Your task to perform on an android device: Empty the shopping cart on newegg.com. Add dell xps to the cart on newegg.com, then select checkout. Image 0: 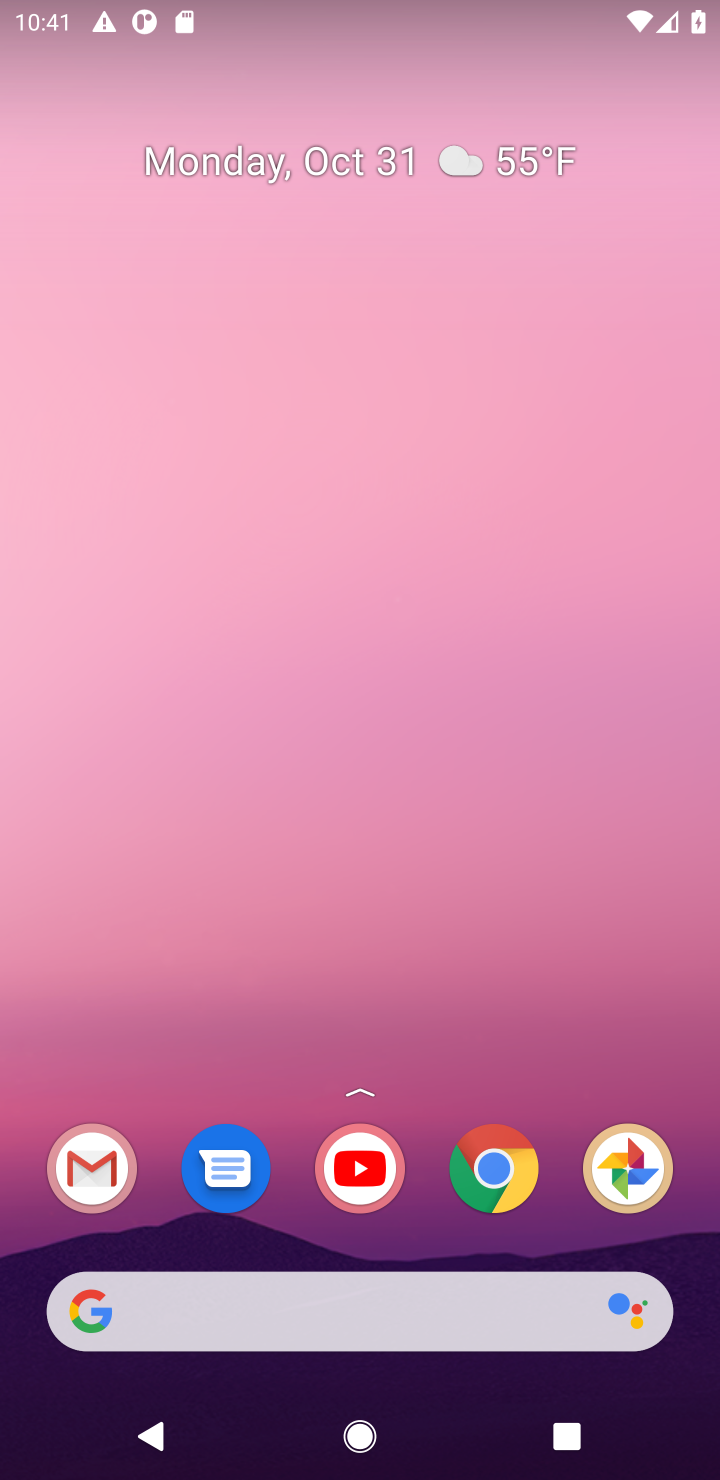
Step 0: click (507, 1169)
Your task to perform on an android device: Empty the shopping cart on newegg.com. Add dell xps to the cart on newegg.com, then select checkout. Image 1: 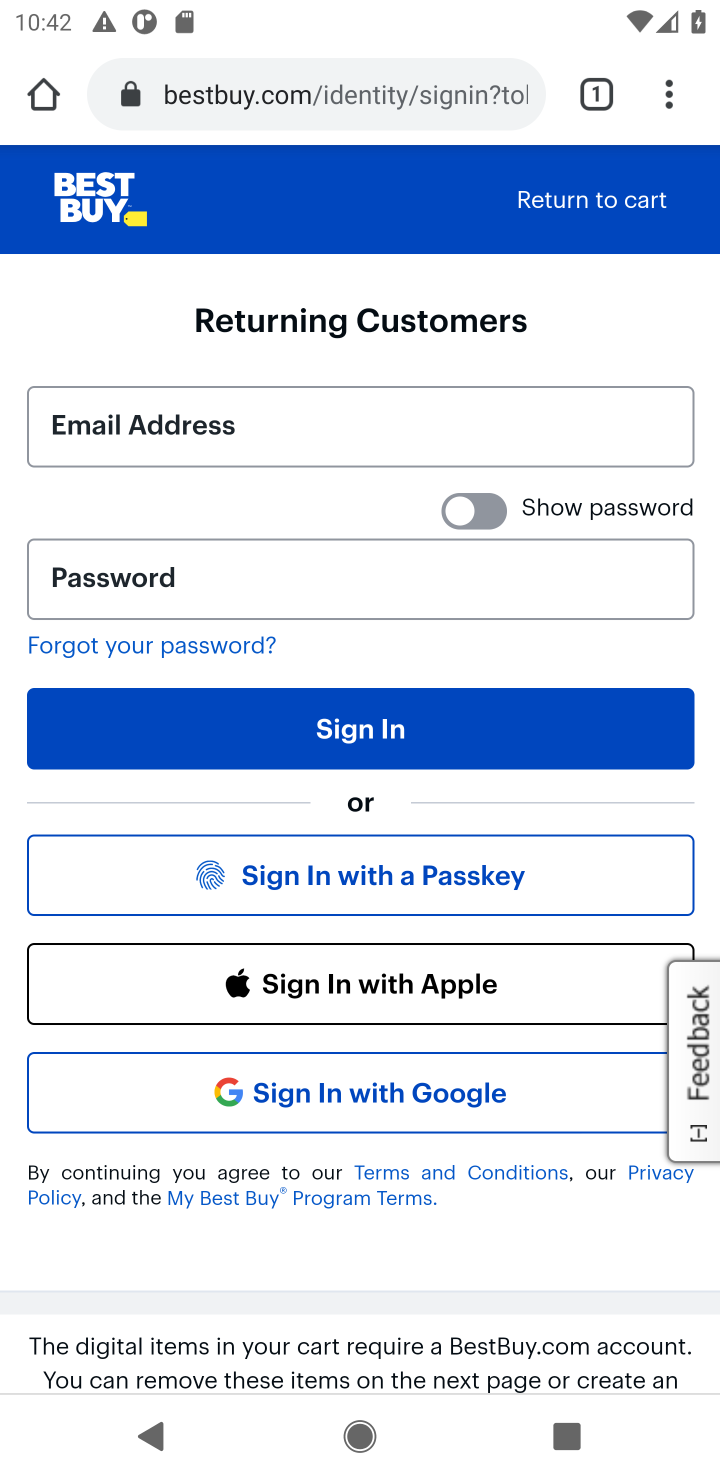
Step 1: click (411, 93)
Your task to perform on an android device: Empty the shopping cart on newegg.com. Add dell xps to the cart on newegg.com, then select checkout. Image 2: 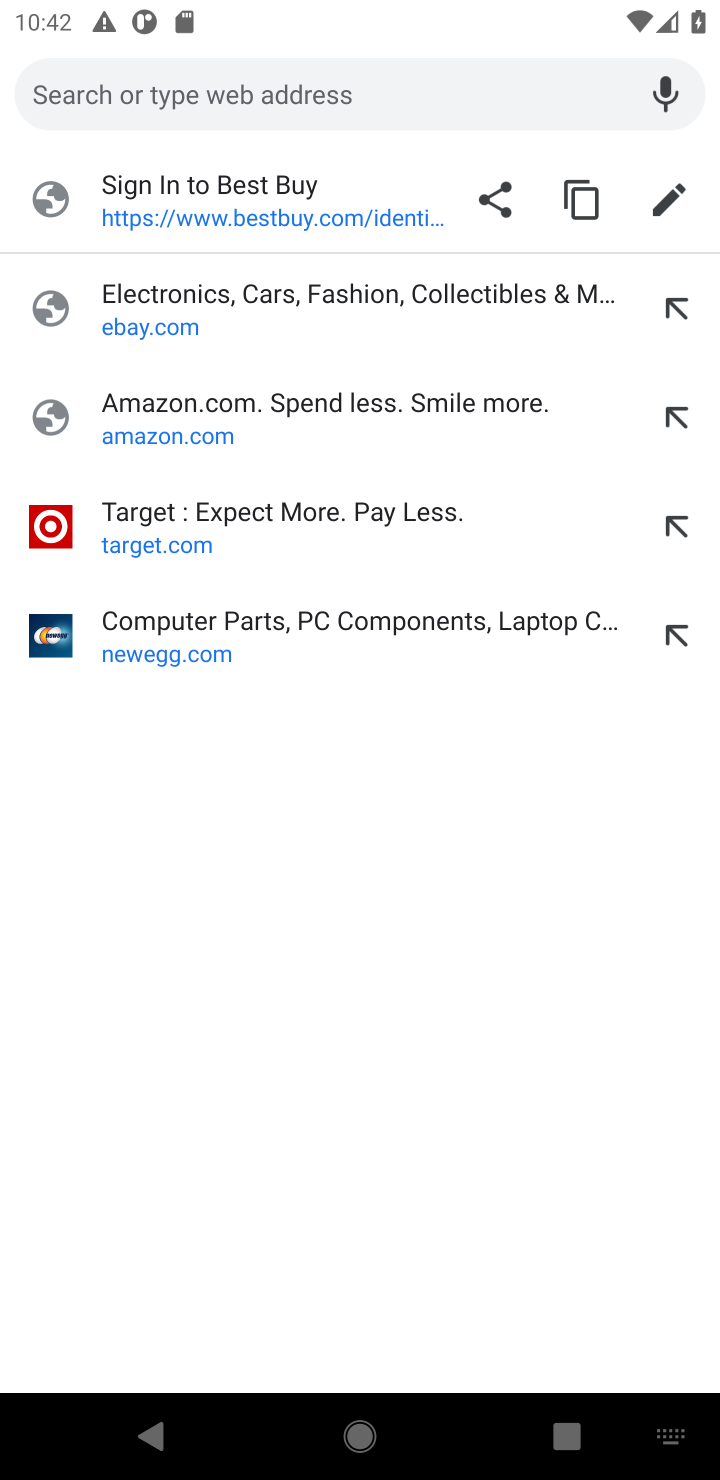
Step 2: type "newegg.com"
Your task to perform on an android device: Empty the shopping cart on newegg.com. Add dell xps to the cart on newegg.com, then select checkout. Image 3: 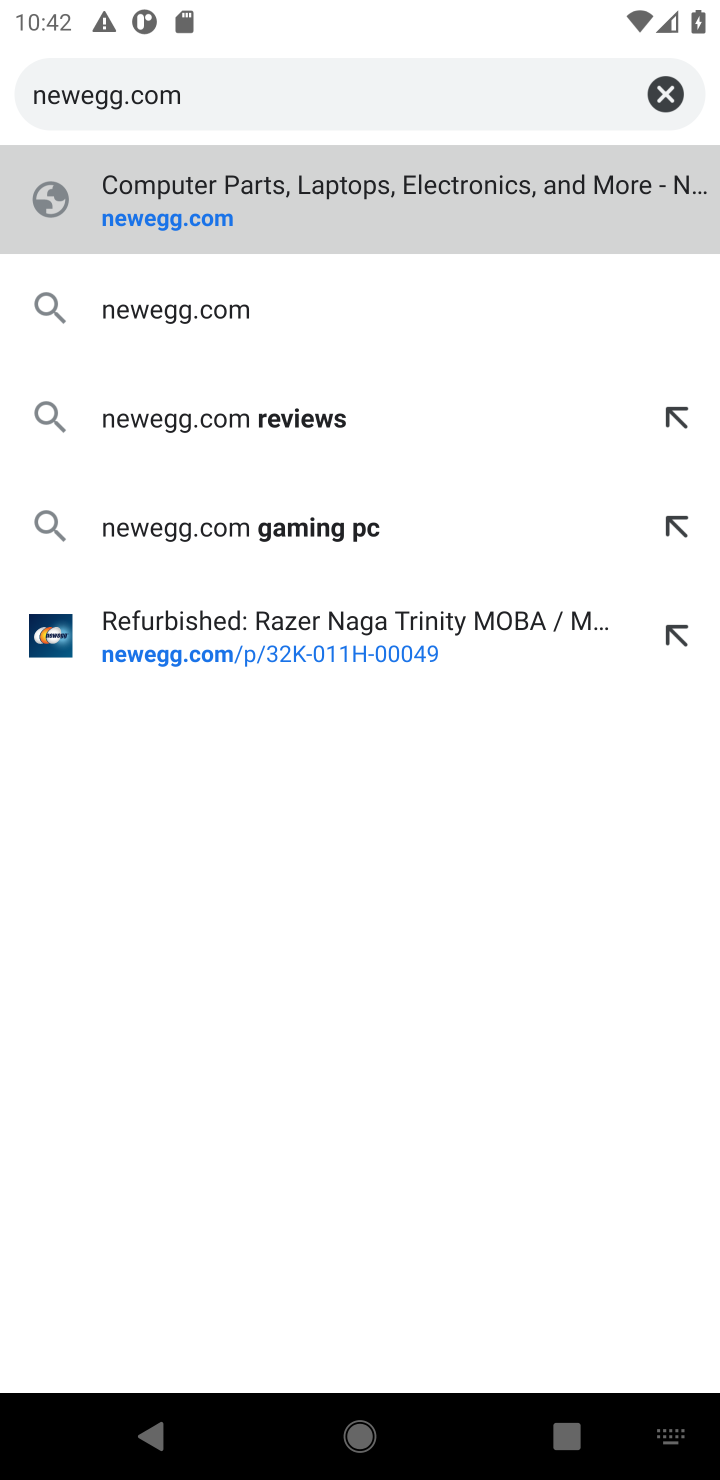
Step 3: press enter
Your task to perform on an android device: Empty the shopping cart on newegg.com. Add dell xps to the cart on newegg.com, then select checkout. Image 4: 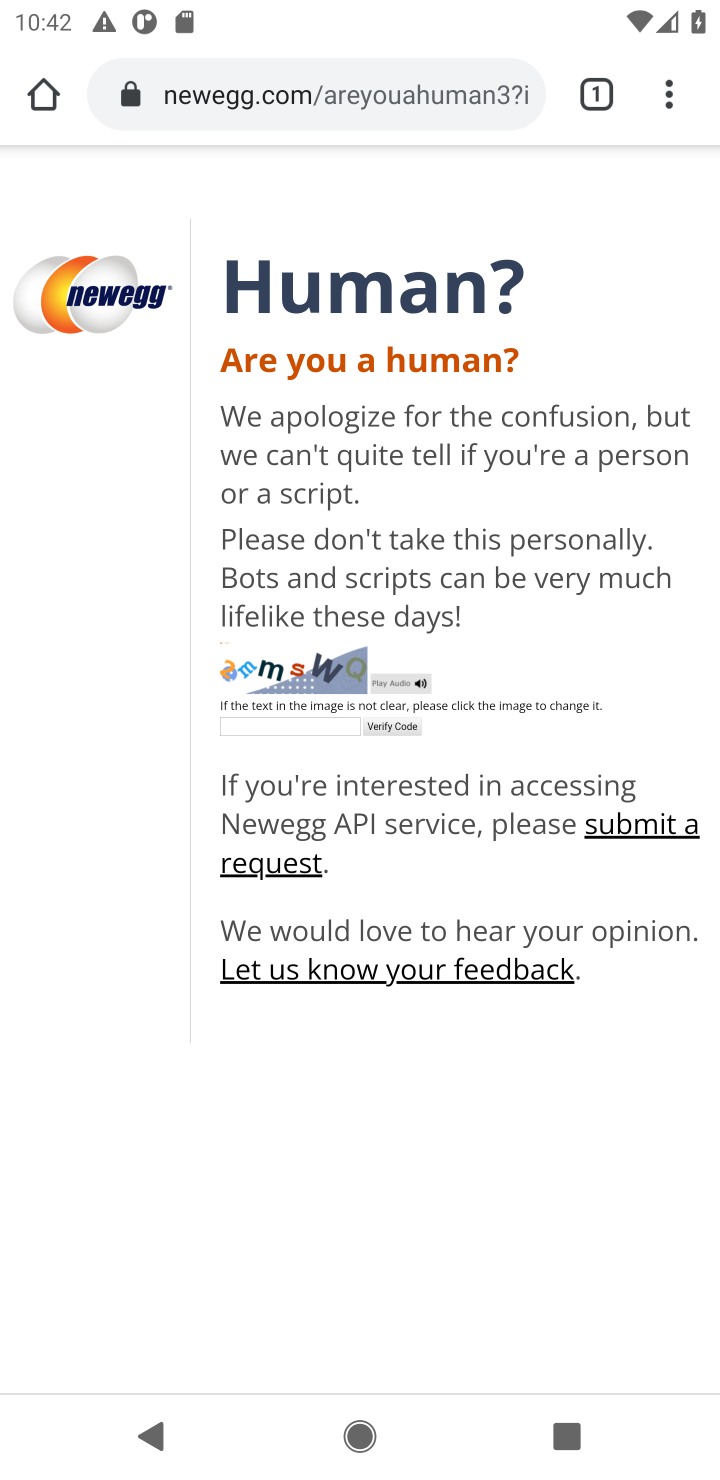
Step 4: click (289, 724)
Your task to perform on an android device: Empty the shopping cart on newegg.com. Add dell xps to the cart on newegg.com, then select checkout. Image 5: 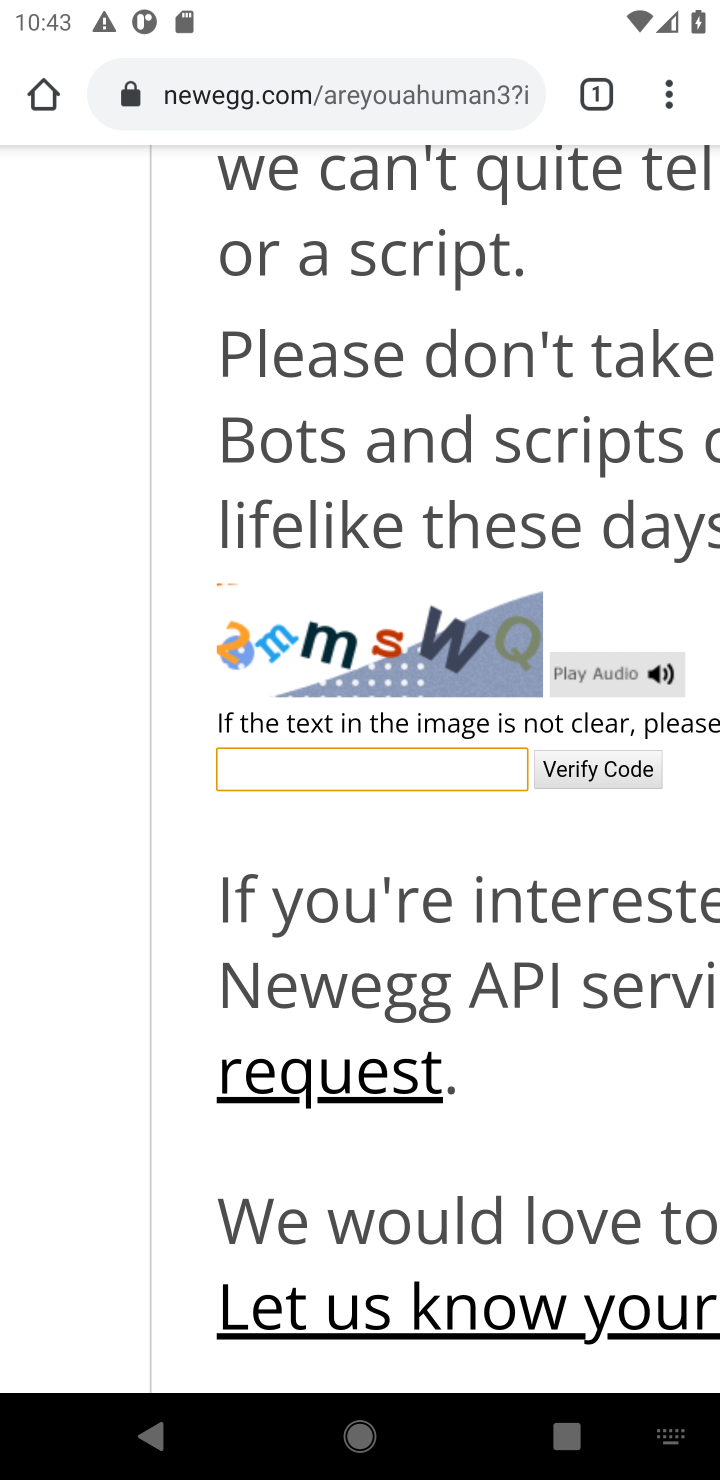
Step 5: click (349, 761)
Your task to perform on an android device: Empty the shopping cart on newegg.com. Add dell xps to the cart on newegg.com, then select checkout. Image 6: 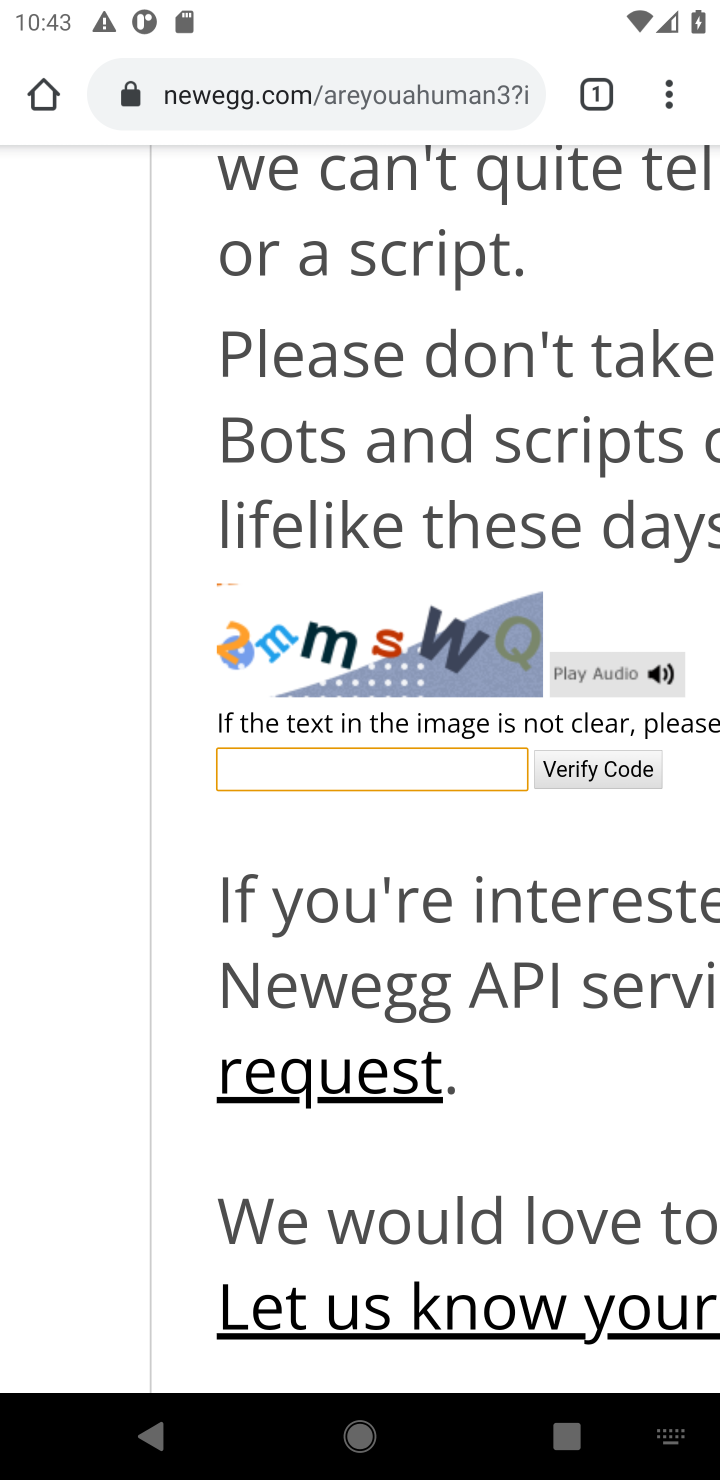
Step 6: type "2mmsWQ"
Your task to perform on an android device: Empty the shopping cart on newegg.com. Add dell xps to the cart on newegg.com, then select checkout. Image 7: 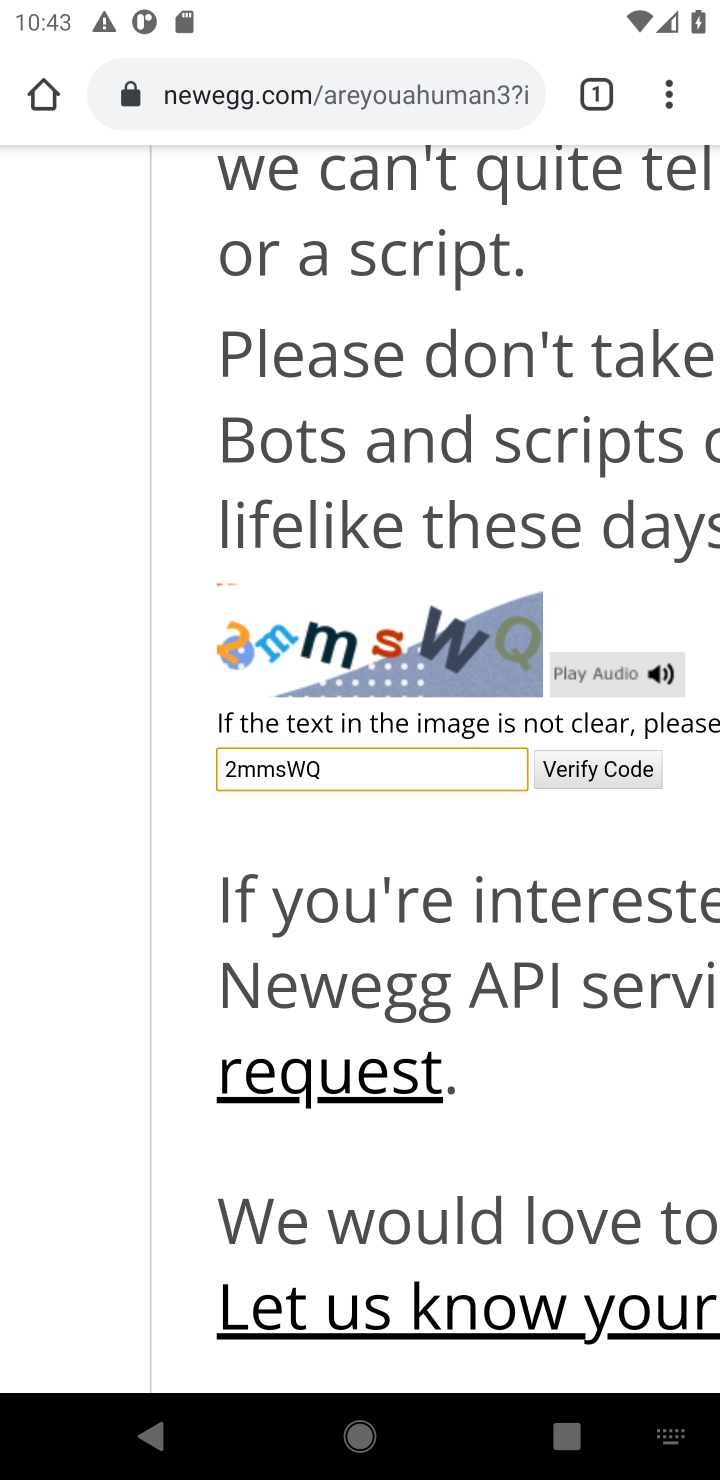
Step 7: click (561, 769)
Your task to perform on an android device: Empty the shopping cart on newegg.com. Add dell xps to the cart on newegg.com, then select checkout. Image 8: 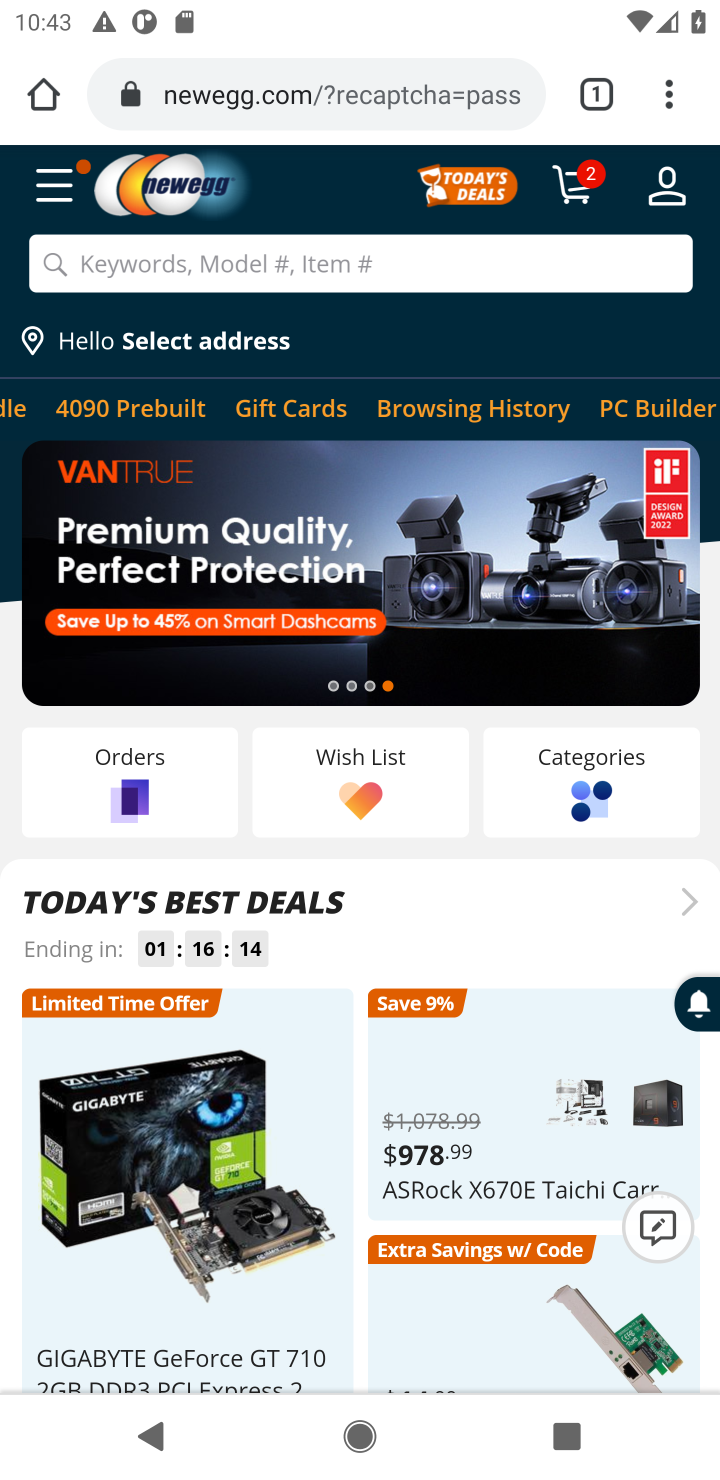
Step 8: click (573, 189)
Your task to perform on an android device: Empty the shopping cart on newegg.com. Add dell xps to the cart on newegg.com, then select checkout. Image 9: 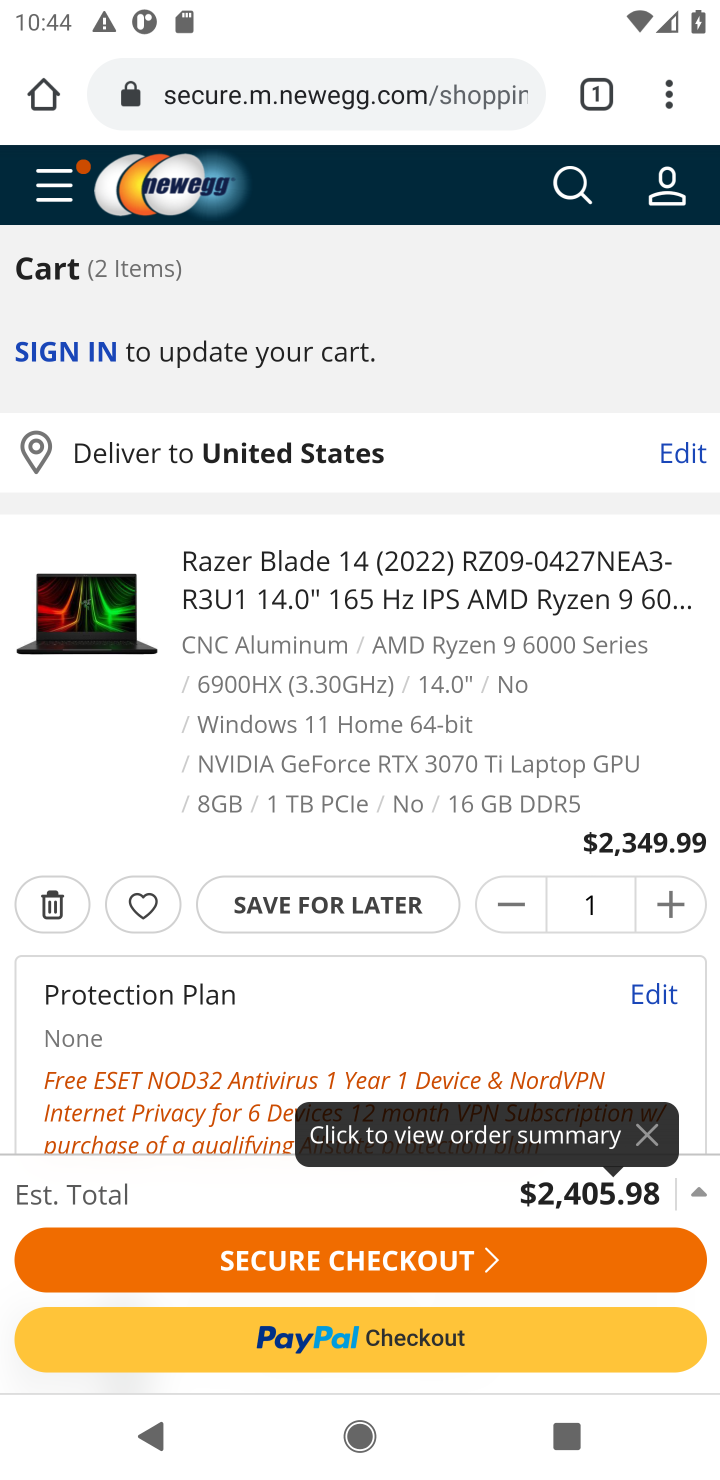
Step 9: click (510, 902)
Your task to perform on an android device: Empty the shopping cart on newegg.com. Add dell xps to the cart on newegg.com, then select checkout. Image 10: 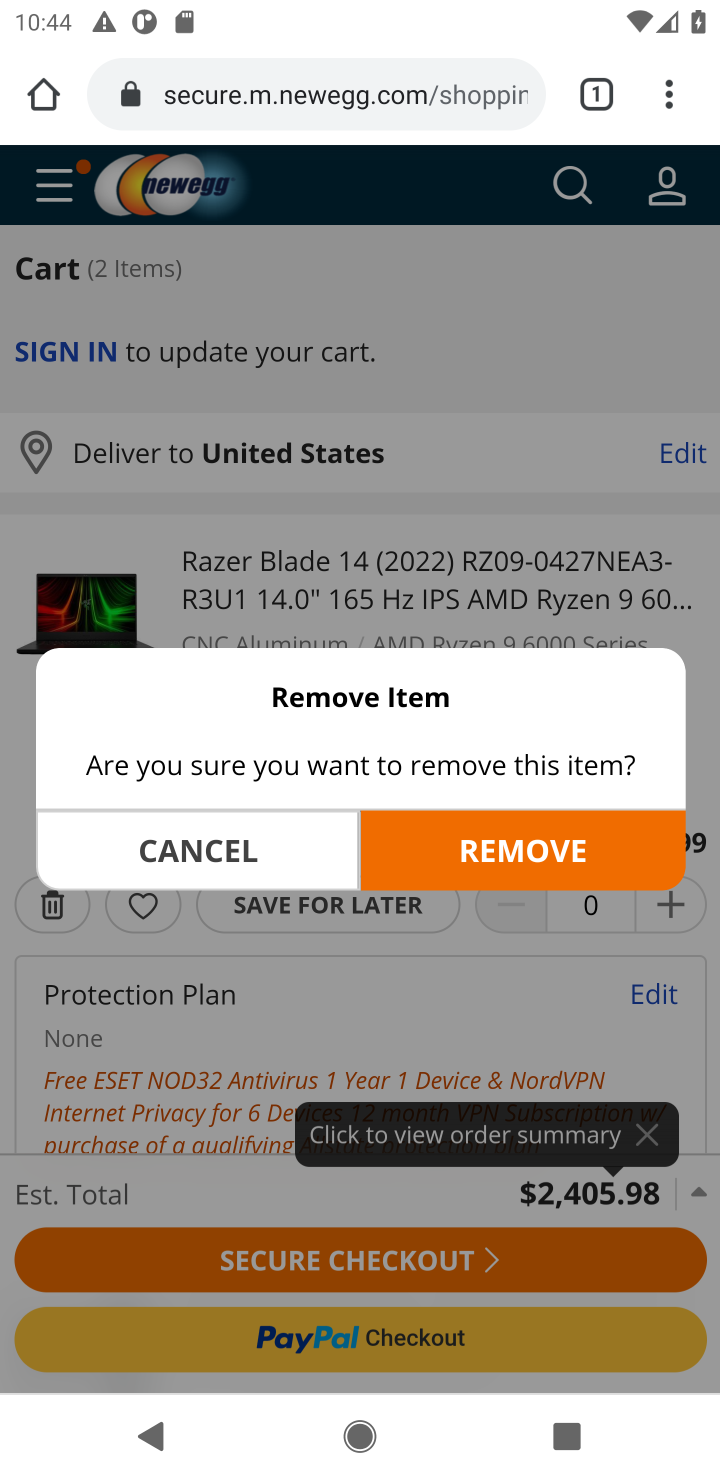
Step 10: click (422, 834)
Your task to perform on an android device: Empty the shopping cart on newegg.com. Add dell xps to the cart on newegg.com, then select checkout. Image 11: 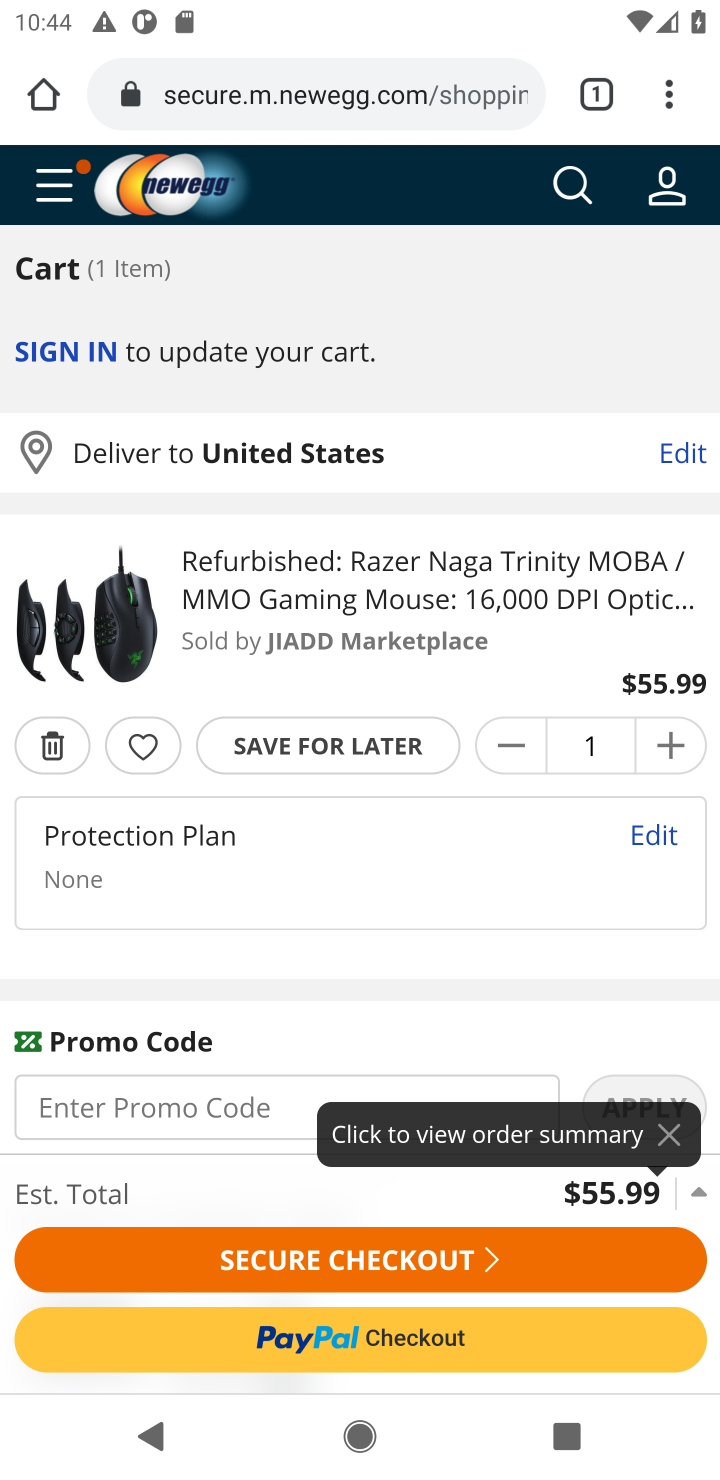
Step 11: click (513, 752)
Your task to perform on an android device: Empty the shopping cart on newegg.com. Add dell xps to the cart on newegg.com, then select checkout. Image 12: 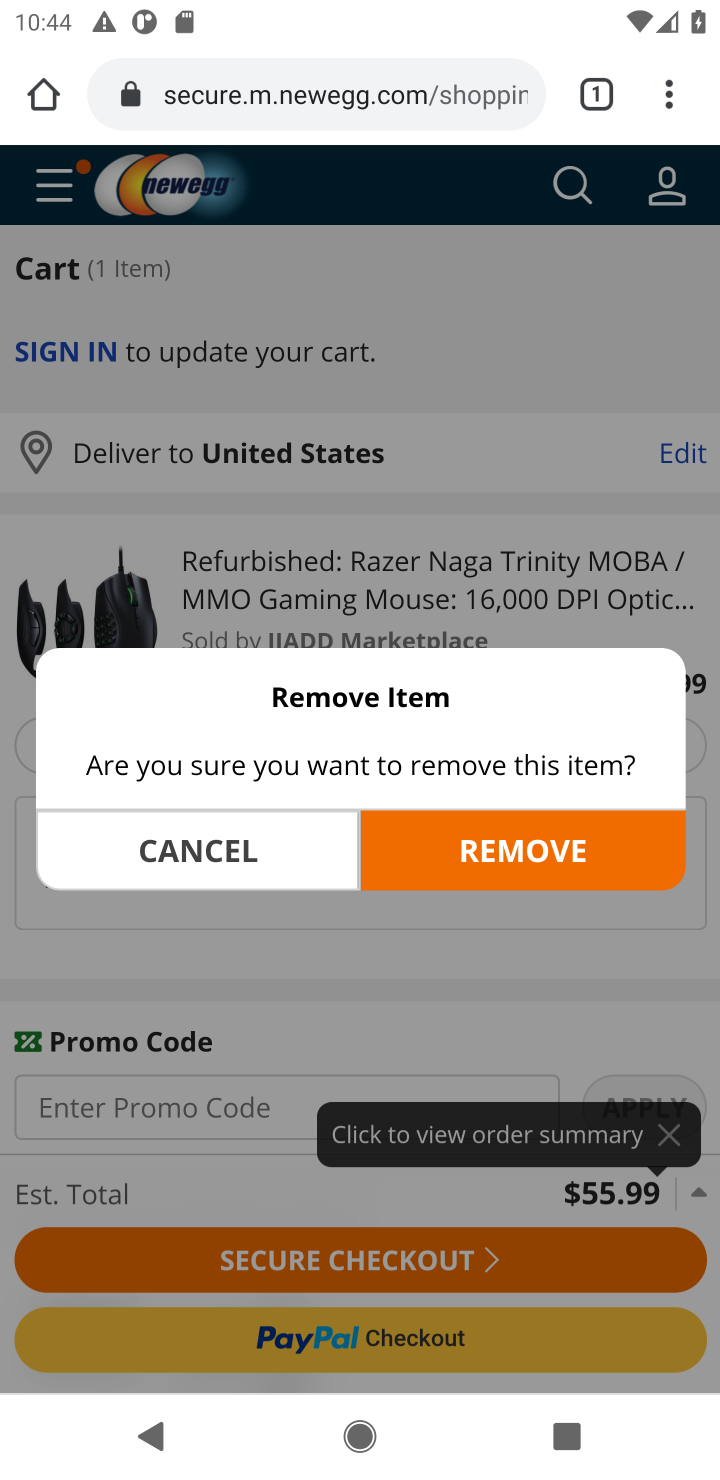
Step 12: click (511, 867)
Your task to perform on an android device: Empty the shopping cart on newegg.com. Add dell xps to the cart on newegg.com, then select checkout. Image 13: 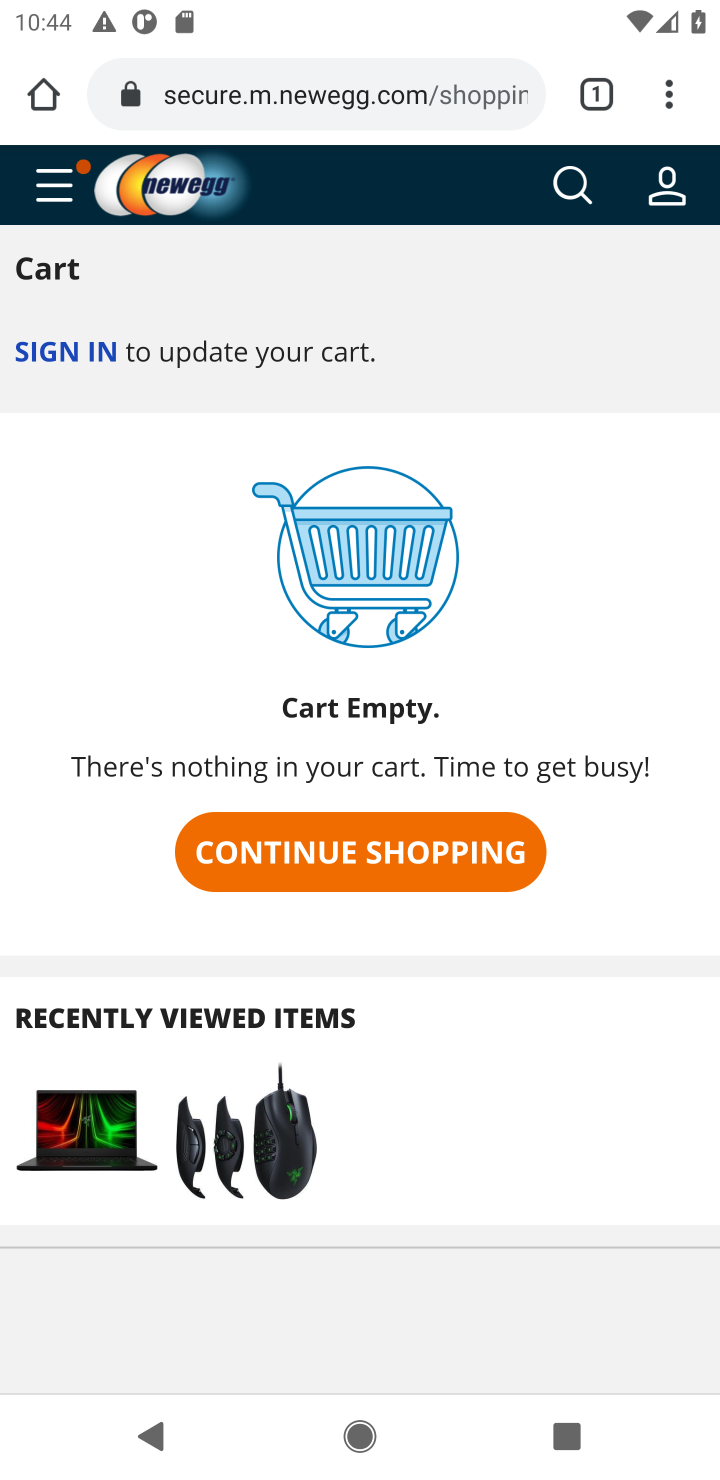
Step 13: click (584, 187)
Your task to perform on an android device: Empty the shopping cart on newegg.com. Add dell xps to the cart on newegg.com, then select checkout. Image 14: 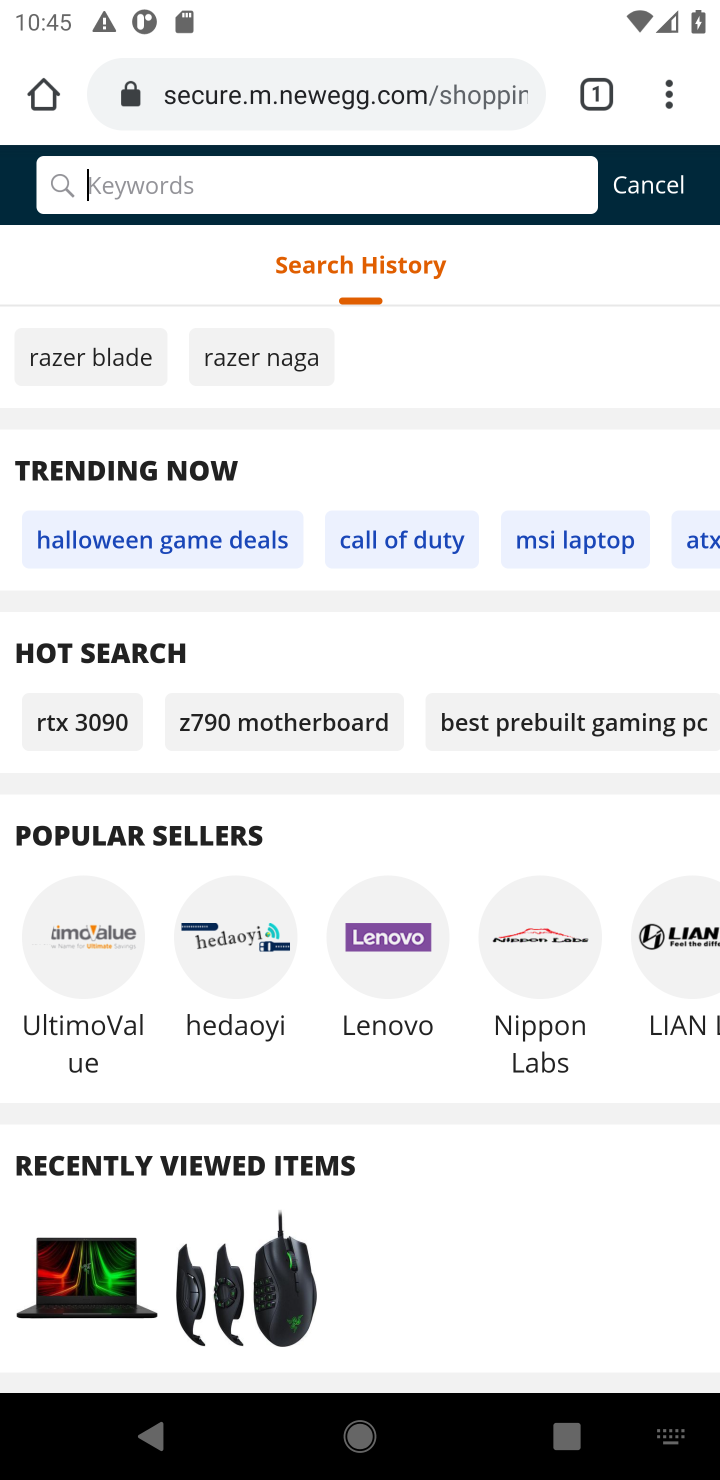
Step 14: type "dell xps"
Your task to perform on an android device: Empty the shopping cart on newegg.com. Add dell xps to the cart on newegg.com, then select checkout. Image 15: 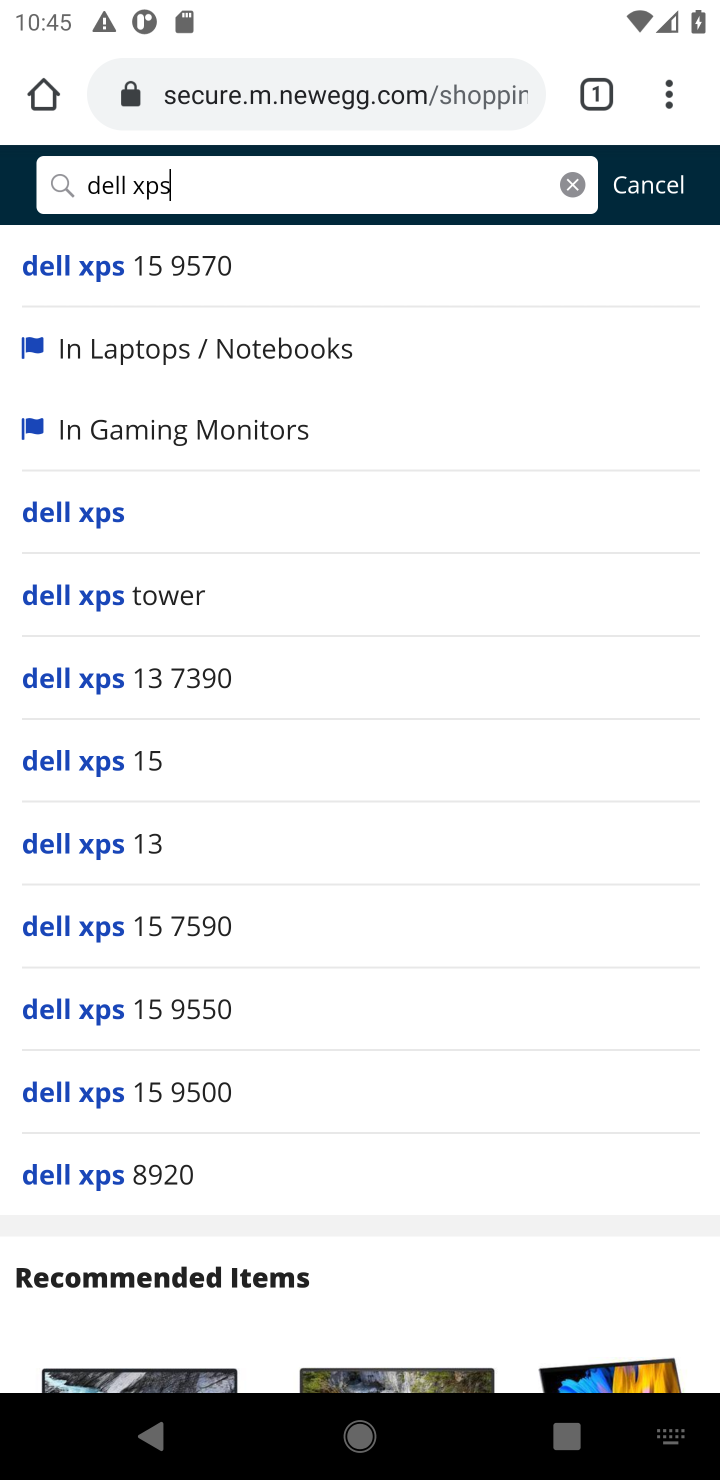
Step 15: press enter
Your task to perform on an android device: Empty the shopping cart on newegg.com. Add dell xps to the cart on newegg.com, then select checkout. Image 16: 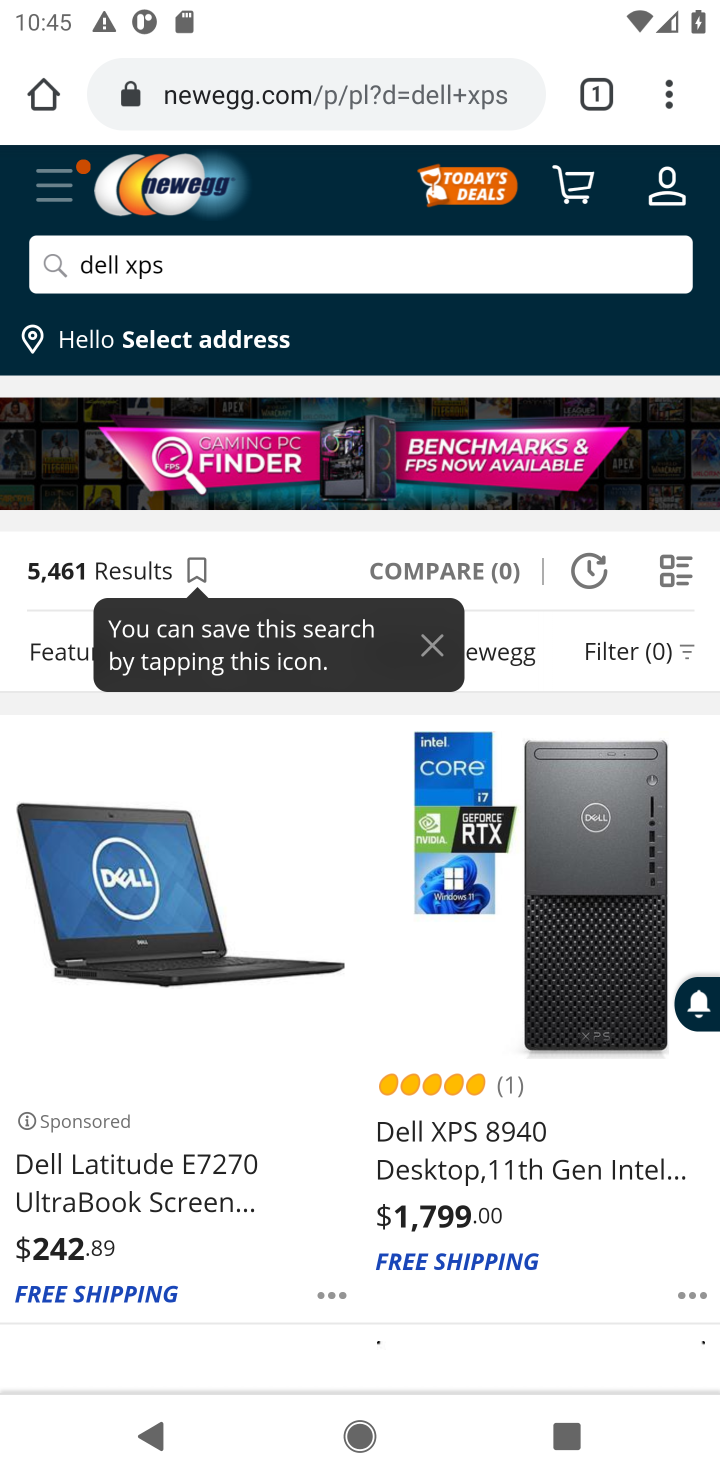
Step 16: click (551, 1047)
Your task to perform on an android device: Empty the shopping cart on newegg.com. Add dell xps to the cart on newegg.com, then select checkout. Image 17: 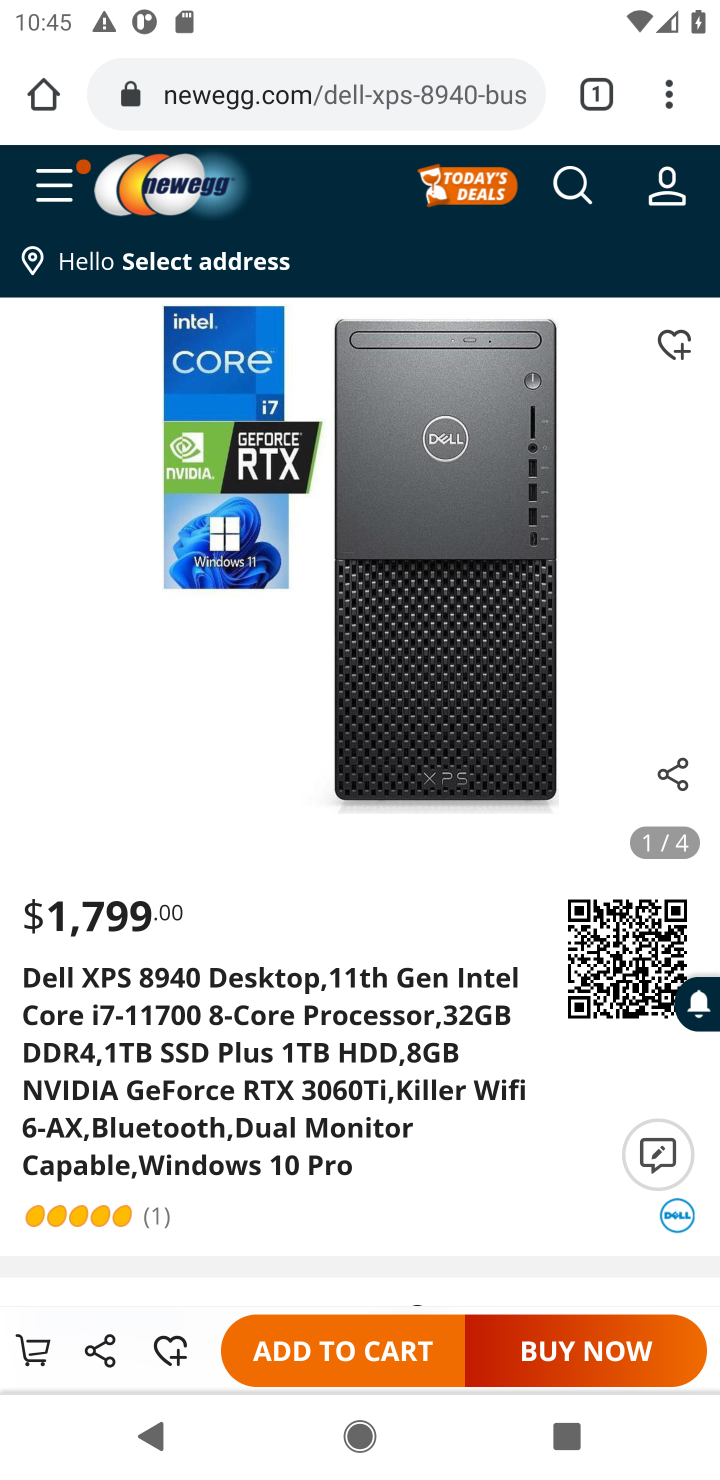
Step 17: click (330, 1349)
Your task to perform on an android device: Empty the shopping cart on newegg.com. Add dell xps to the cart on newegg.com, then select checkout. Image 18: 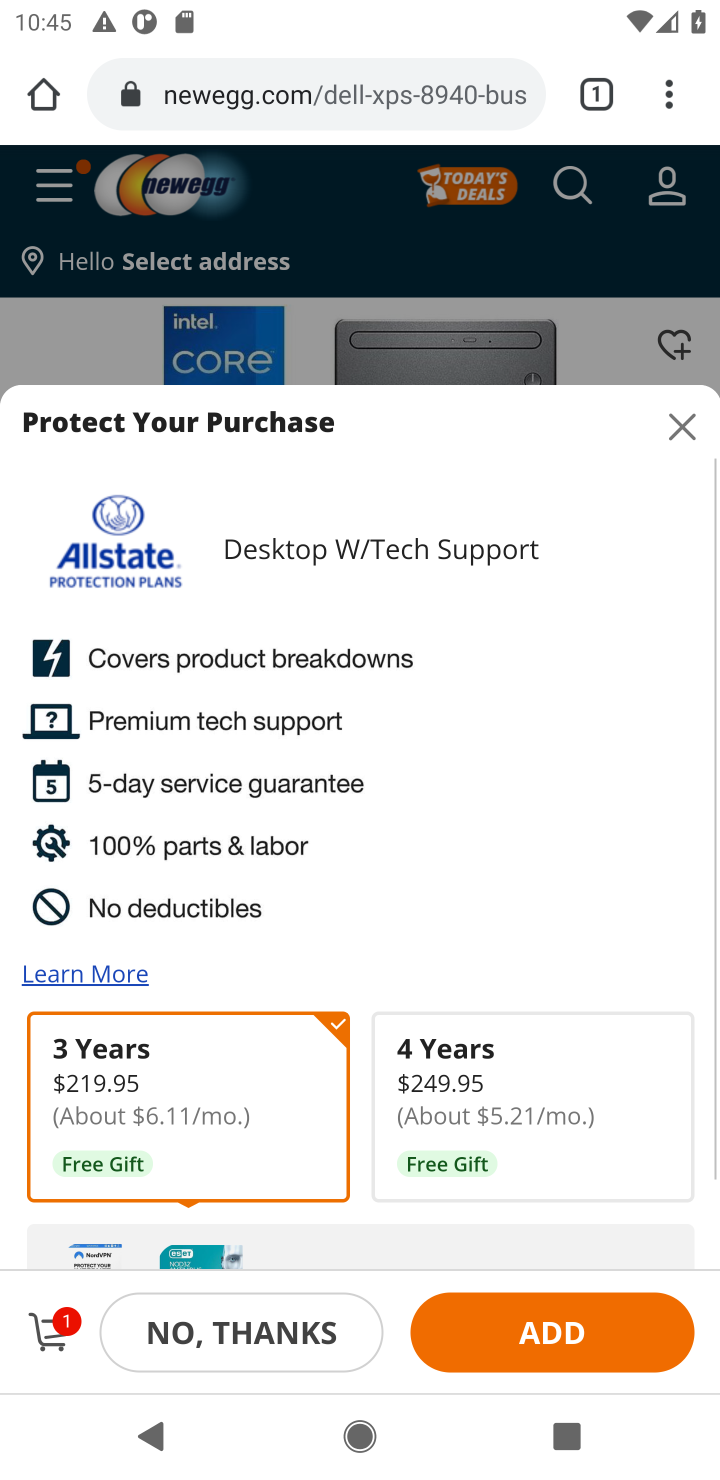
Step 18: click (273, 1326)
Your task to perform on an android device: Empty the shopping cart on newegg.com. Add dell xps to the cart on newegg.com, then select checkout. Image 19: 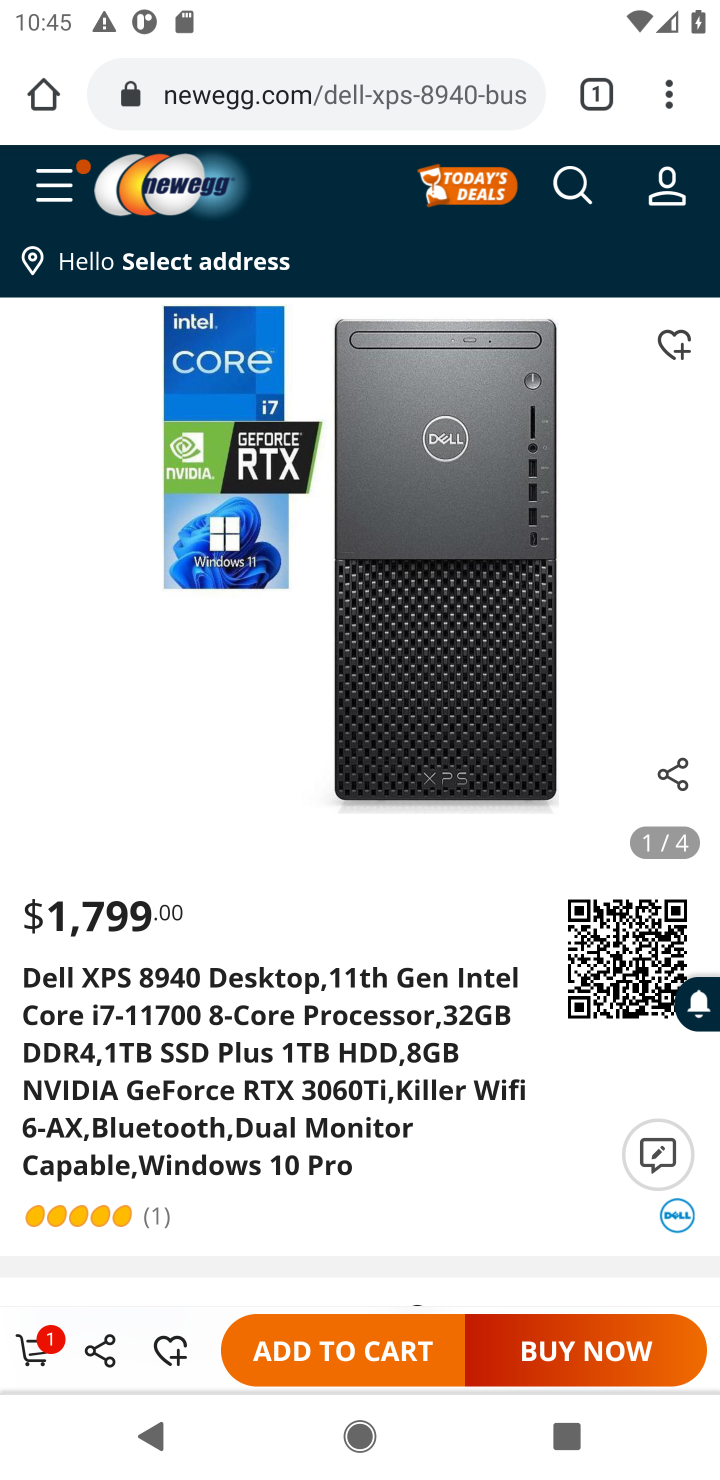
Step 19: click (47, 1342)
Your task to perform on an android device: Empty the shopping cart on newegg.com. Add dell xps to the cart on newegg.com, then select checkout. Image 20: 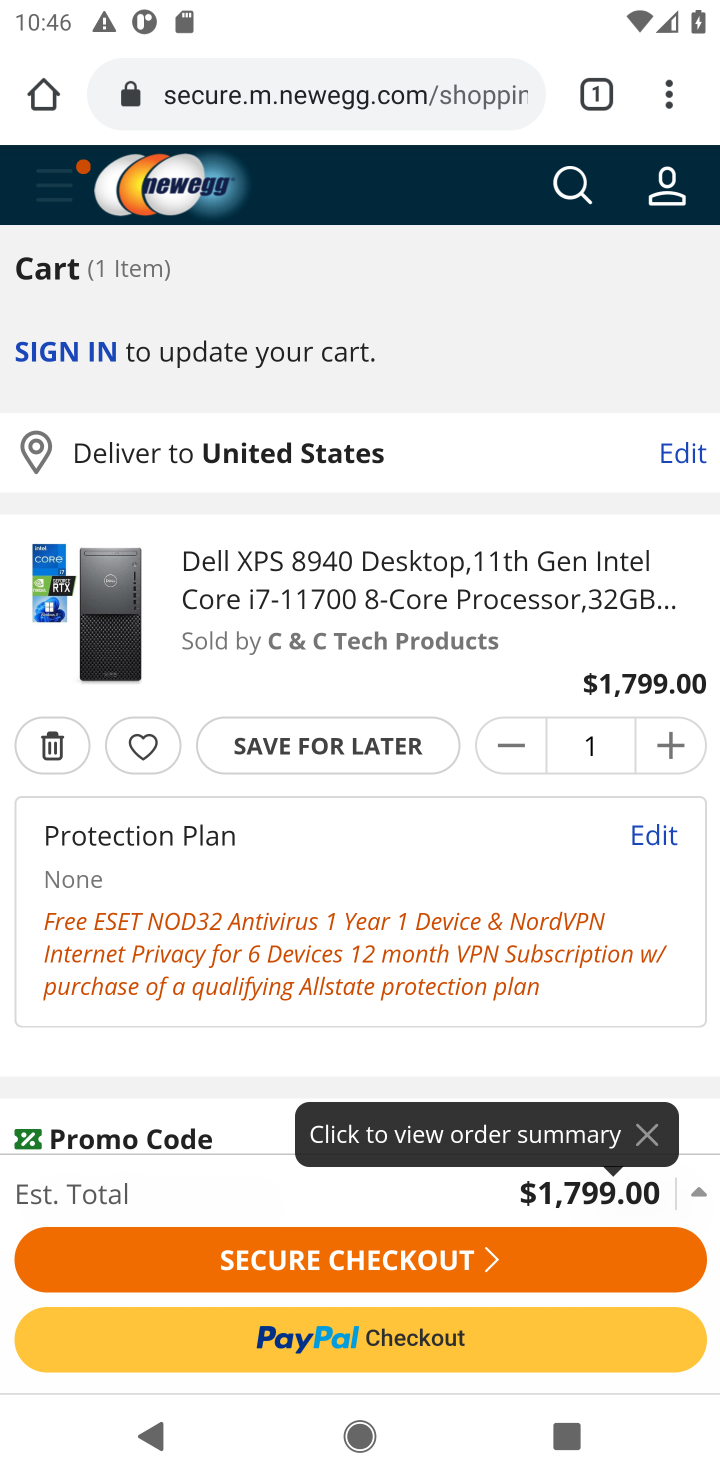
Step 20: click (301, 1262)
Your task to perform on an android device: Empty the shopping cart on newegg.com. Add dell xps to the cart on newegg.com, then select checkout. Image 21: 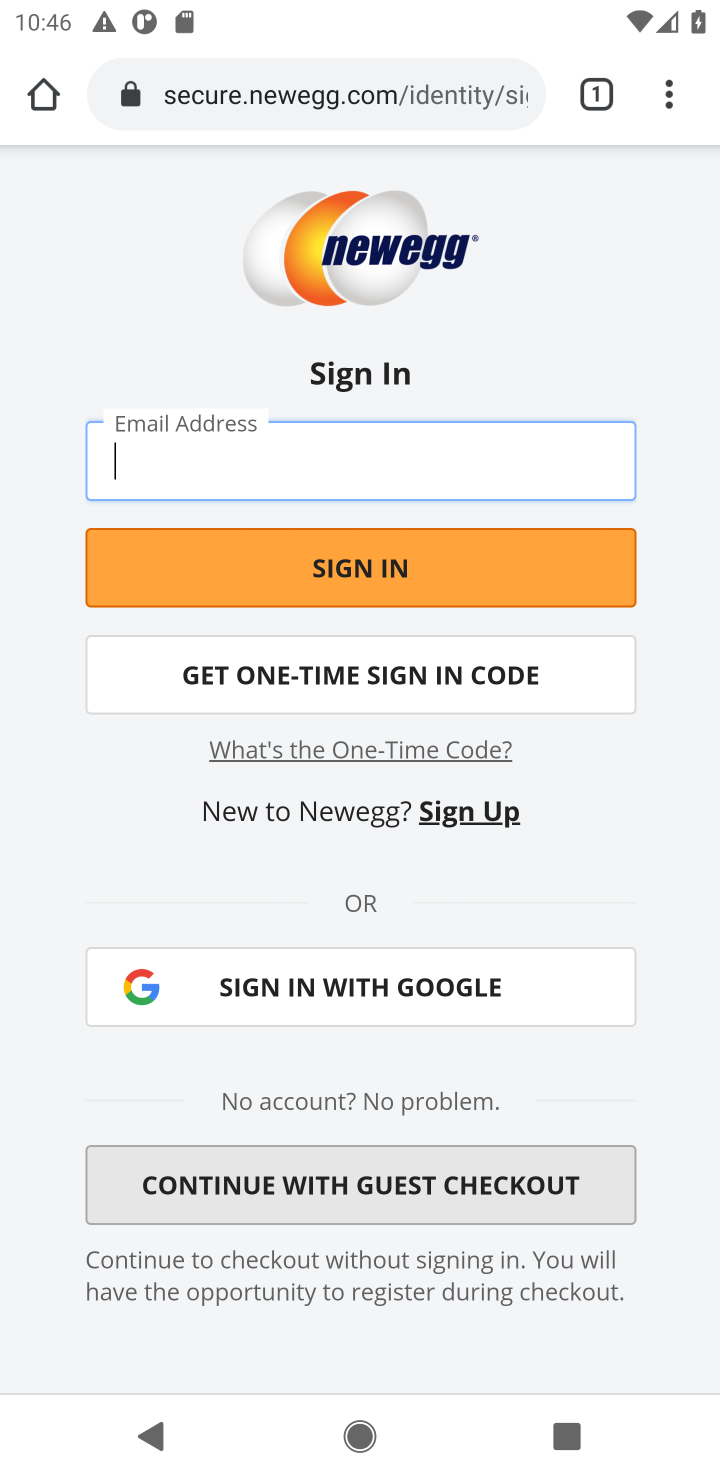
Step 21: task complete